Your task to perform on an android device: What's the weather today? Image 0: 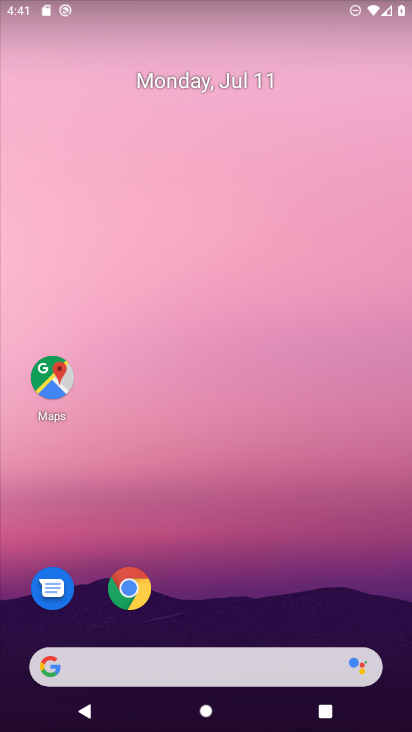
Step 0: press home button
Your task to perform on an android device: What's the weather today? Image 1: 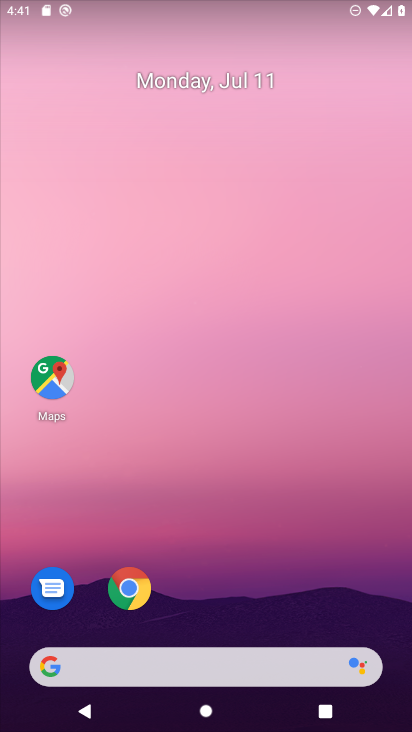
Step 1: click (51, 667)
Your task to perform on an android device: What's the weather today? Image 2: 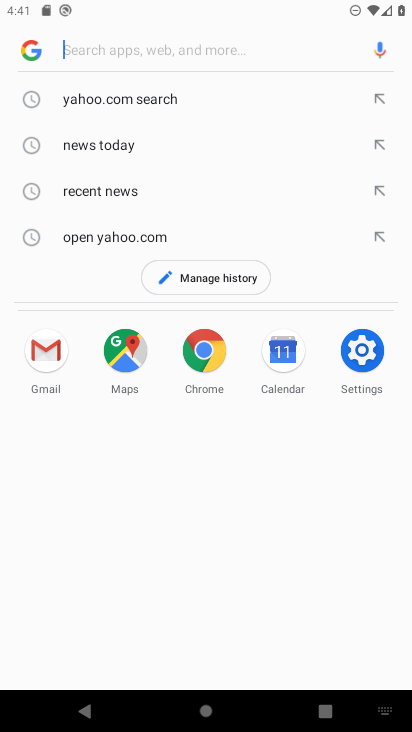
Step 2: type "weather today"
Your task to perform on an android device: What's the weather today? Image 3: 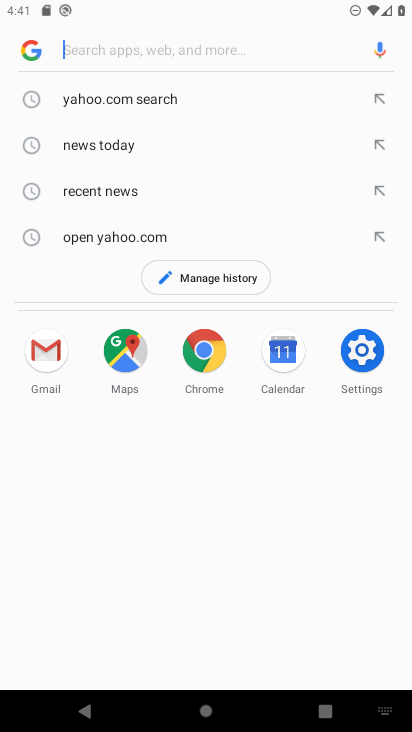
Step 3: click (217, 41)
Your task to perform on an android device: What's the weather today? Image 4: 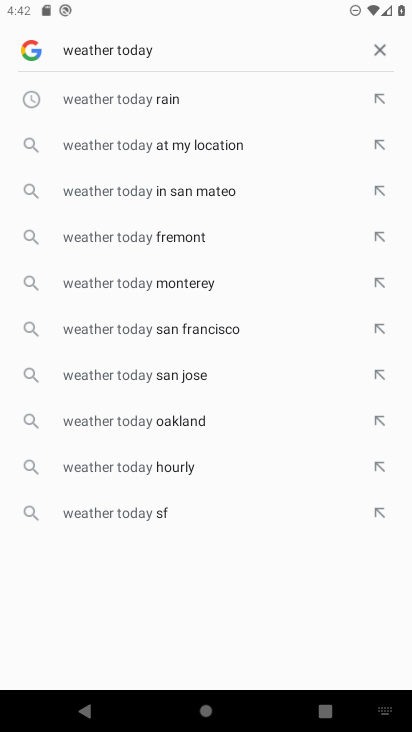
Step 4: click (207, 53)
Your task to perform on an android device: What's the weather today? Image 5: 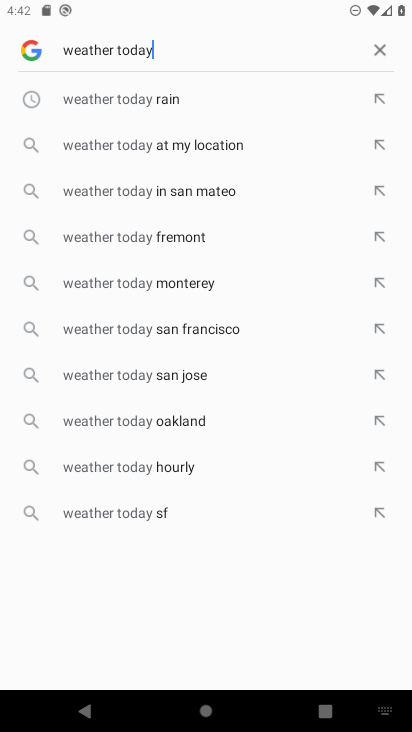
Step 5: press enter
Your task to perform on an android device: What's the weather today? Image 6: 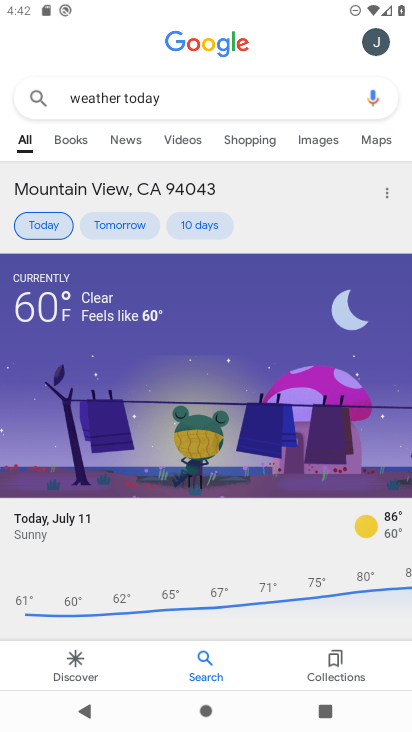
Step 6: task complete